Your task to perform on an android device: toggle data saver in the chrome app Image 0: 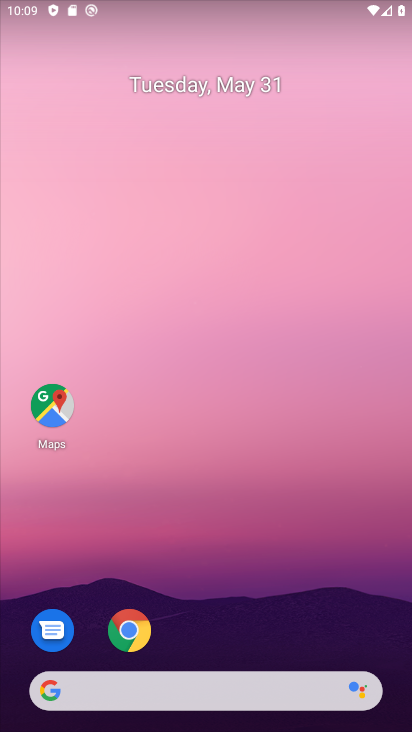
Step 0: click (142, 630)
Your task to perform on an android device: toggle data saver in the chrome app Image 1: 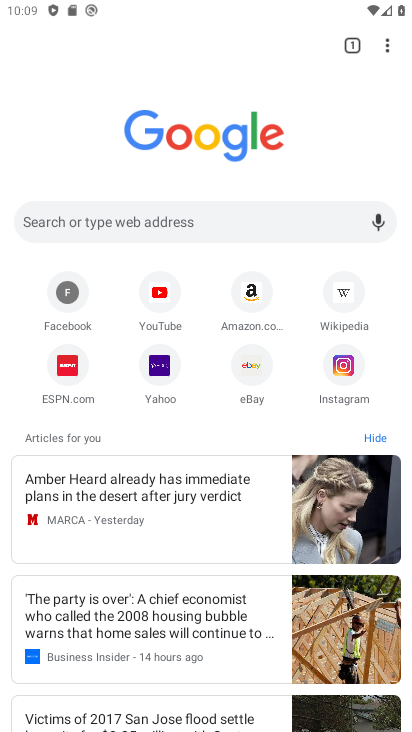
Step 1: click (387, 45)
Your task to perform on an android device: toggle data saver in the chrome app Image 2: 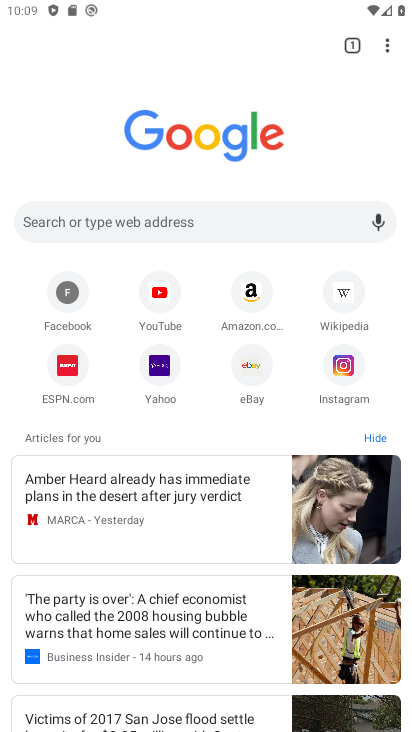
Step 2: drag from (393, 46) to (244, 379)
Your task to perform on an android device: toggle data saver in the chrome app Image 3: 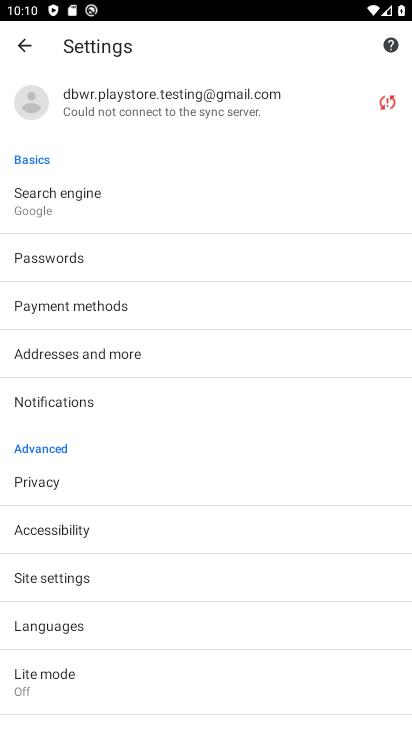
Step 3: click (109, 698)
Your task to perform on an android device: toggle data saver in the chrome app Image 4: 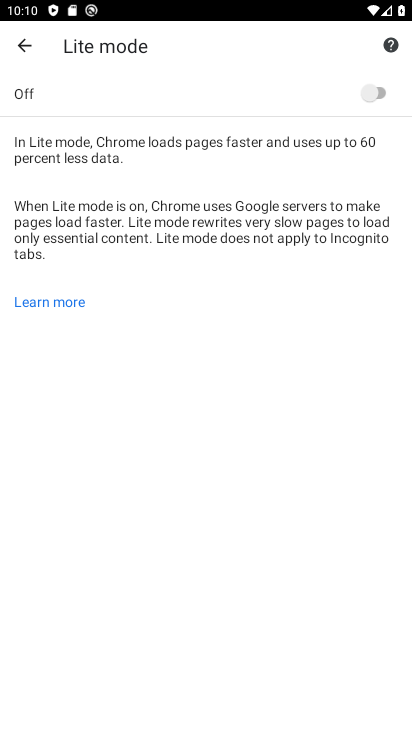
Step 4: click (382, 95)
Your task to perform on an android device: toggle data saver in the chrome app Image 5: 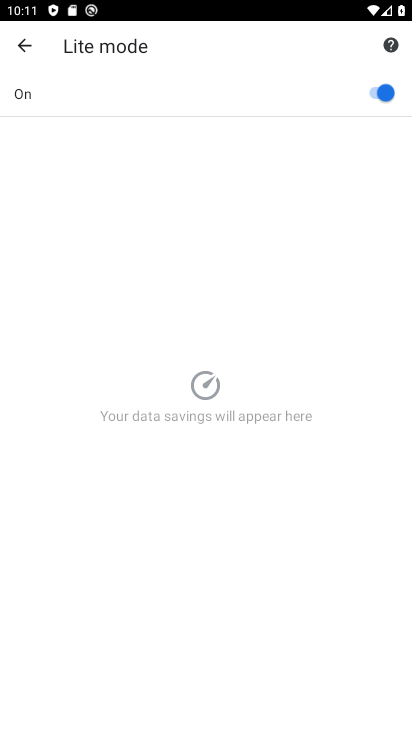
Step 5: task complete